Your task to perform on an android device: Go to Yahoo.com Image 0: 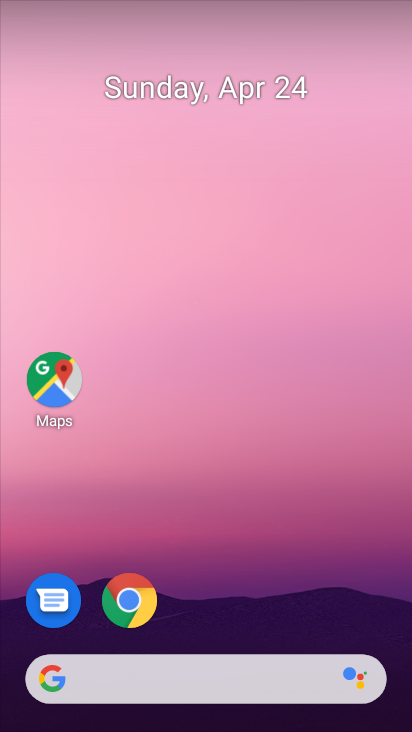
Step 0: click (134, 597)
Your task to perform on an android device: Go to Yahoo.com Image 1: 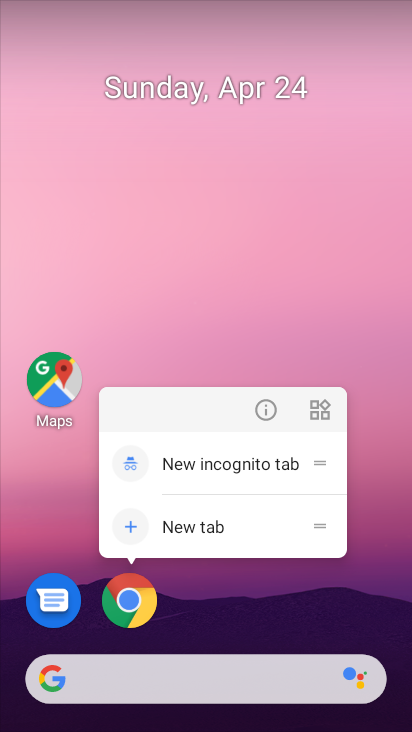
Step 1: click (134, 597)
Your task to perform on an android device: Go to Yahoo.com Image 2: 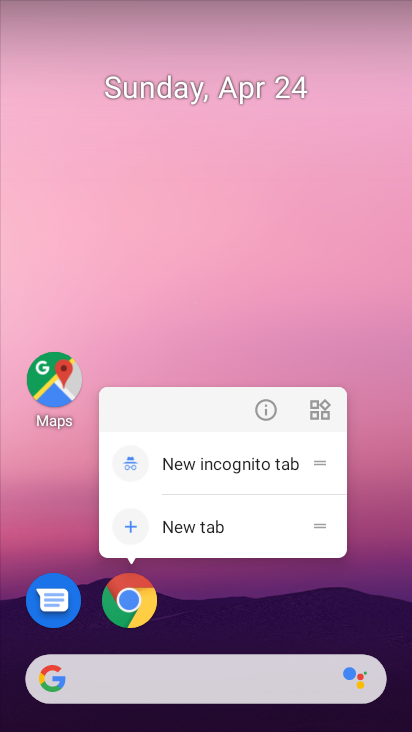
Step 2: click (127, 602)
Your task to perform on an android device: Go to Yahoo.com Image 3: 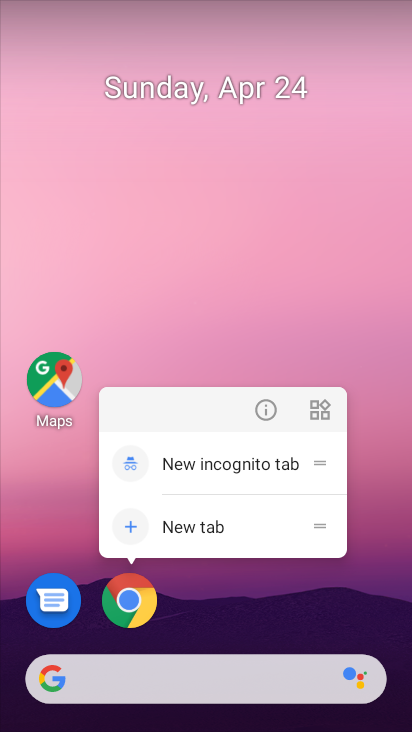
Step 3: click (121, 607)
Your task to perform on an android device: Go to Yahoo.com Image 4: 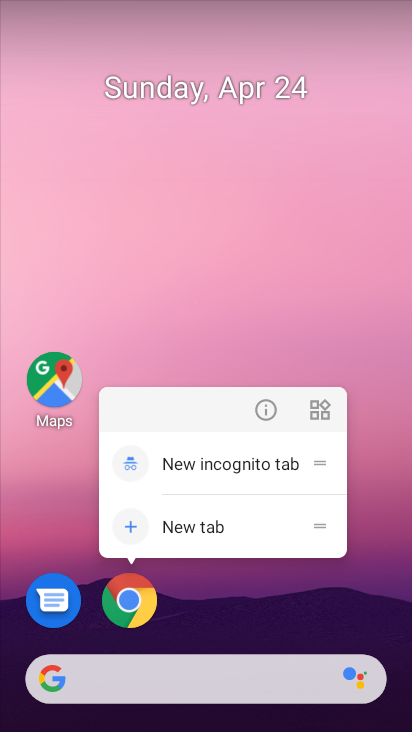
Step 4: click (133, 600)
Your task to perform on an android device: Go to Yahoo.com Image 5: 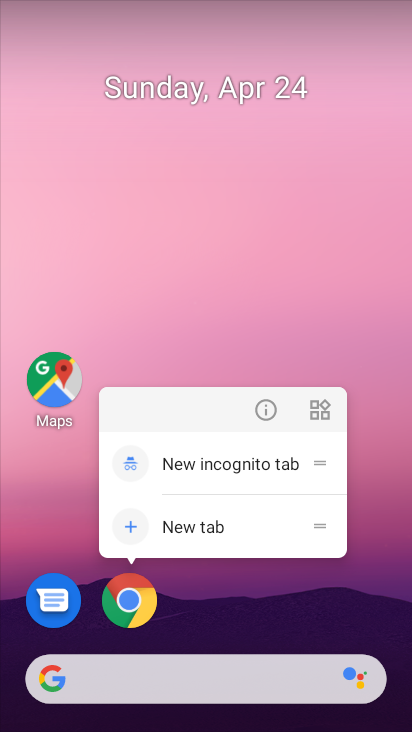
Step 5: click (133, 600)
Your task to perform on an android device: Go to Yahoo.com Image 6: 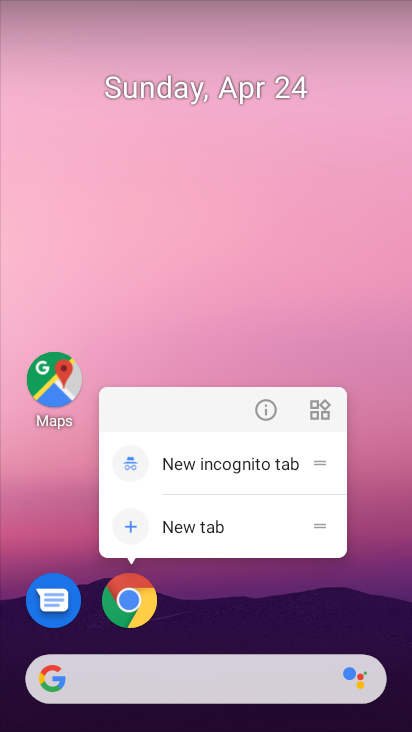
Step 6: click (133, 600)
Your task to perform on an android device: Go to Yahoo.com Image 7: 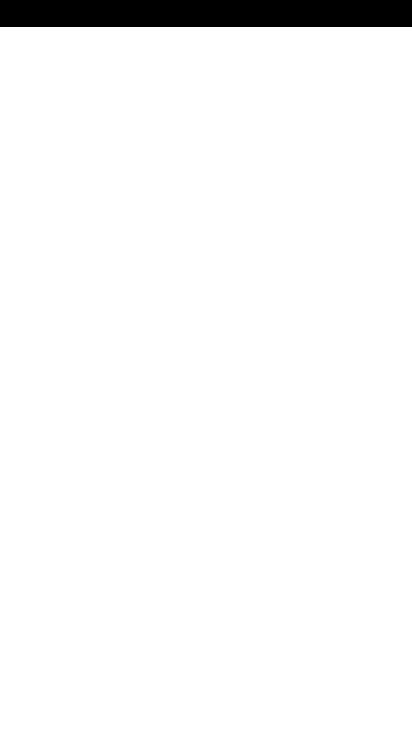
Step 7: click (134, 605)
Your task to perform on an android device: Go to Yahoo.com Image 8: 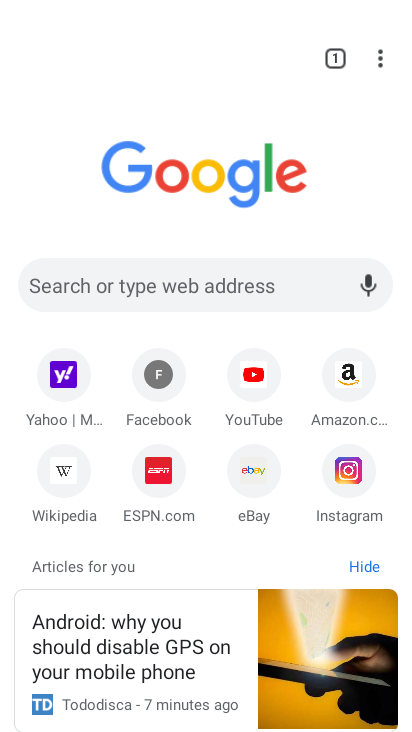
Step 8: click (73, 382)
Your task to perform on an android device: Go to Yahoo.com Image 9: 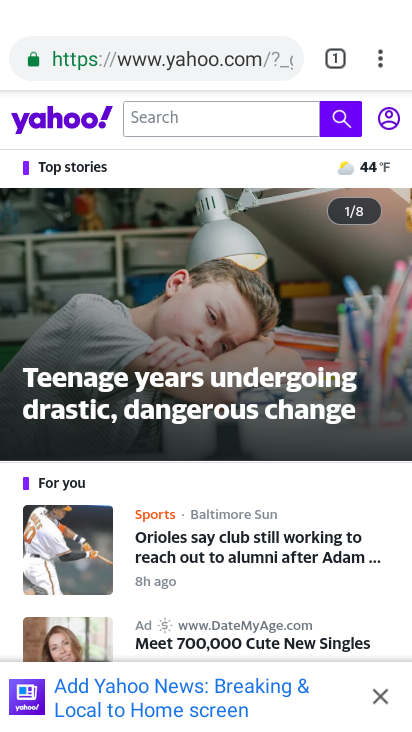
Step 9: task complete